Your task to perform on an android device: change the clock display to analog Image 0: 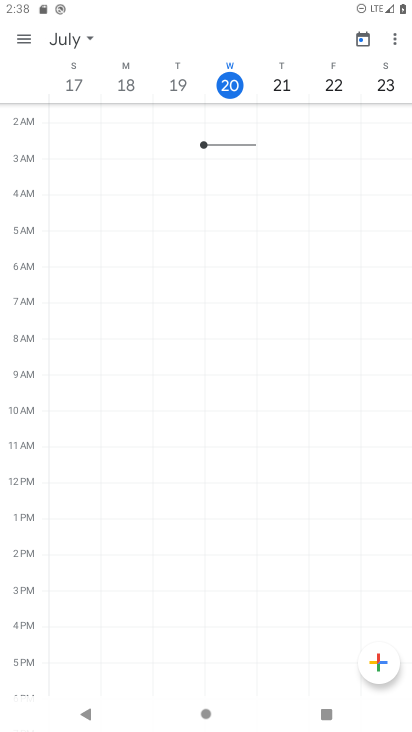
Step 0: press home button
Your task to perform on an android device: change the clock display to analog Image 1: 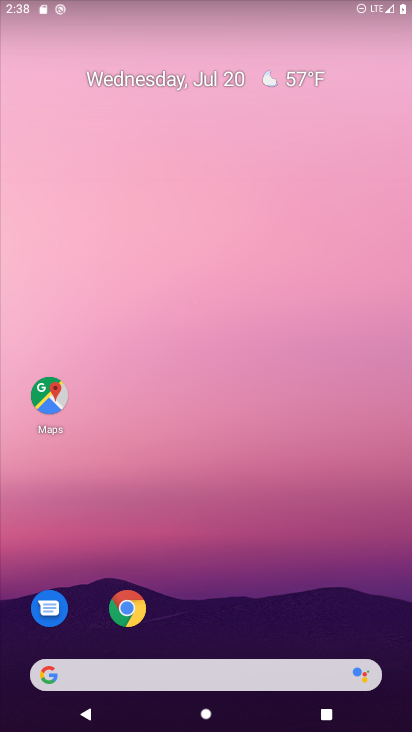
Step 1: drag from (237, 710) to (248, 213)
Your task to perform on an android device: change the clock display to analog Image 2: 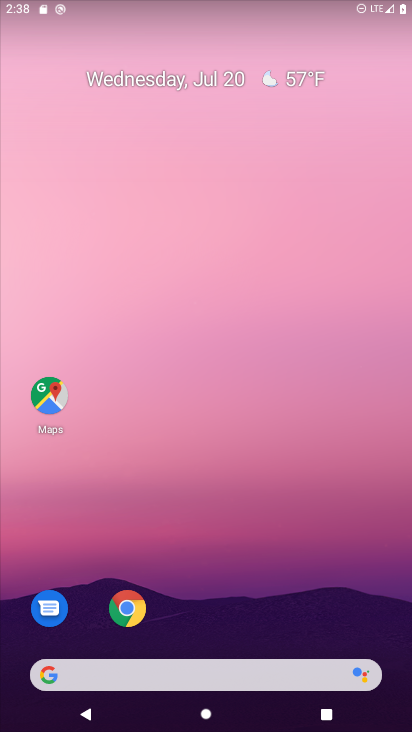
Step 2: click (225, 709)
Your task to perform on an android device: change the clock display to analog Image 3: 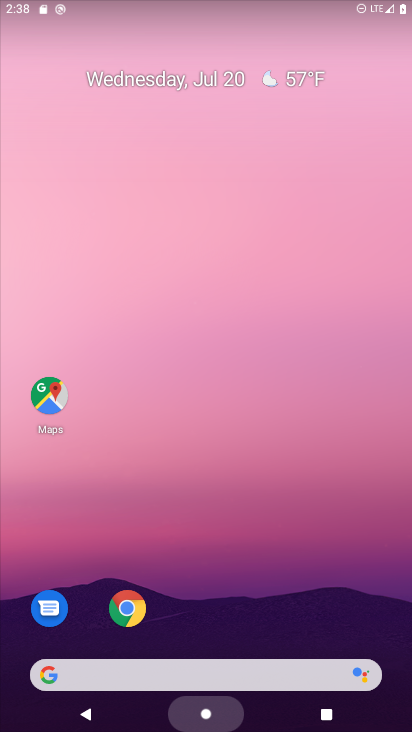
Step 3: click (184, 223)
Your task to perform on an android device: change the clock display to analog Image 4: 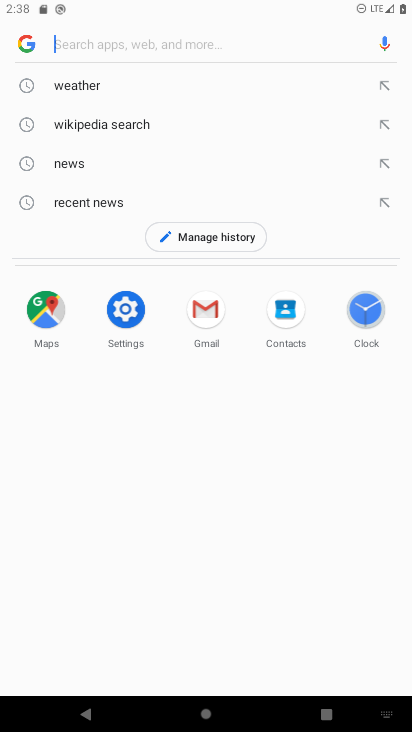
Step 4: press home button
Your task to perform on an android device: change the clock display to analog Image 5: 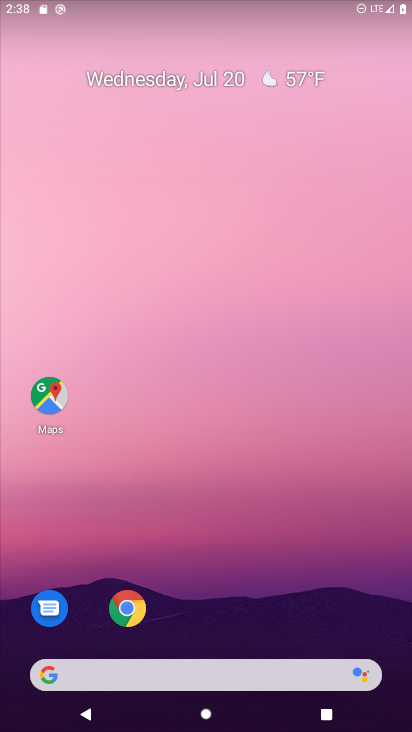
Step 5: drag from (220, 722) to (254, 158)
Your task to perform on an android device: change the clock display to analog Image 6: 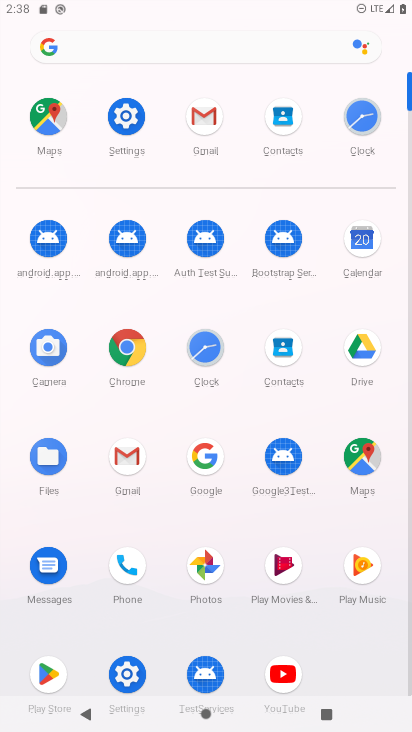
Step 6: click (196, 348)
Your task to perform on an android device: change the clock display to analog Image 7: 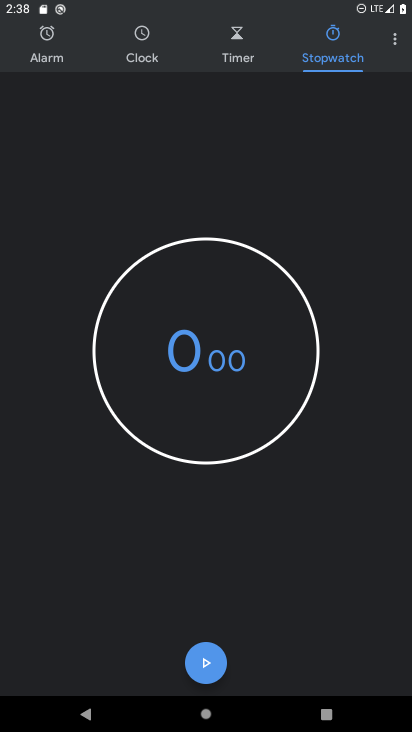
Step 7: click (397, 46)
Your task to perform on an android device: change the clock display to analog Image 8: 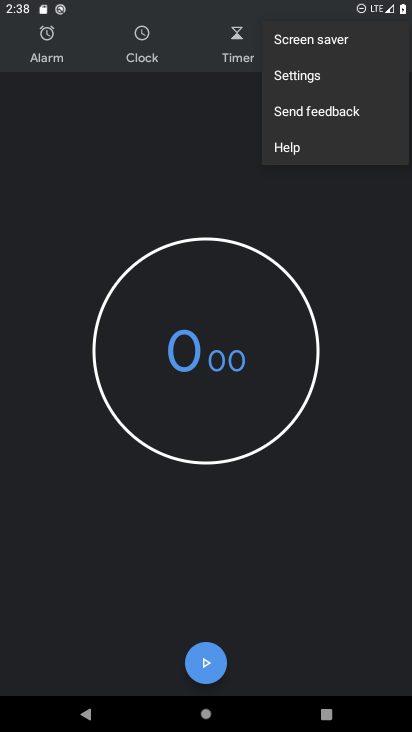
Step 8: click (314, 71)
Your task to perform on an android device: change the clock display to analog Image 9: 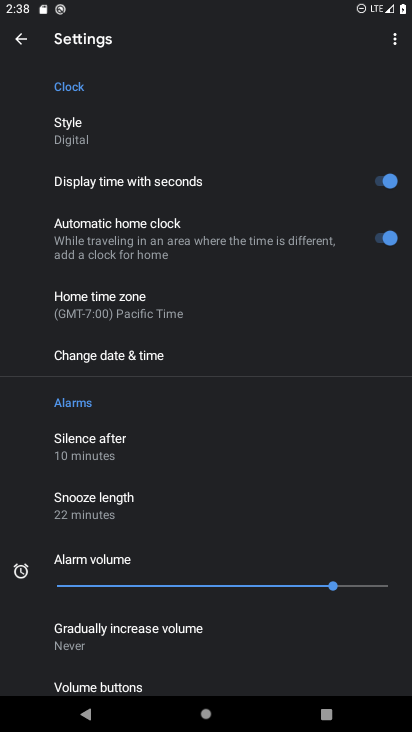
Step 9: click (67, 138)
Your task to perform on an android device: change the clock display to analog Image 10: 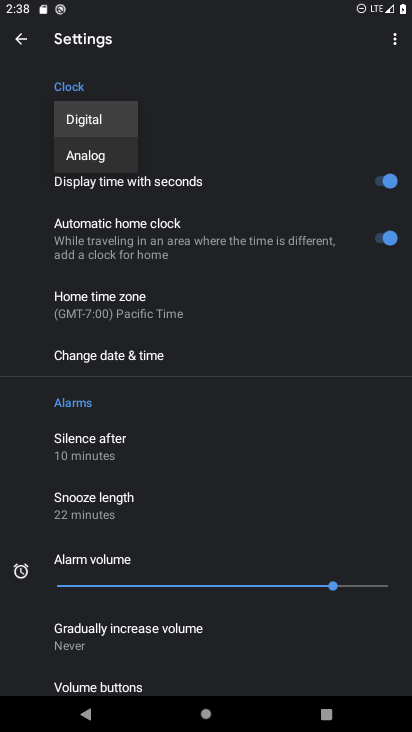
Step 10: click (78, 157)
Your task to perform on an android device: change the clock display to analog Image 11: 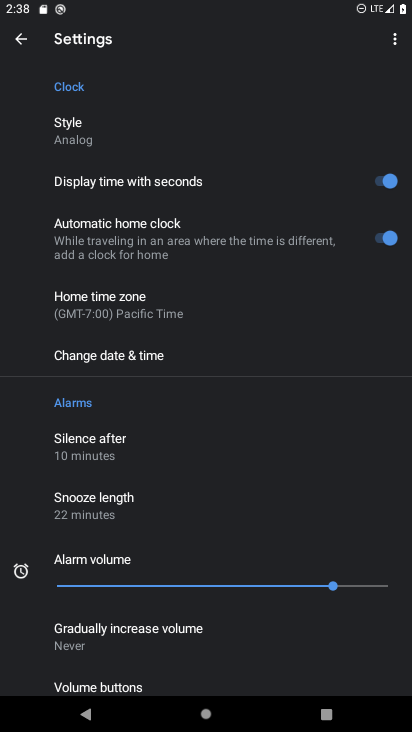
Step 11: task complete